Your task to perform on an android device: toggle sleep mode Image 0: 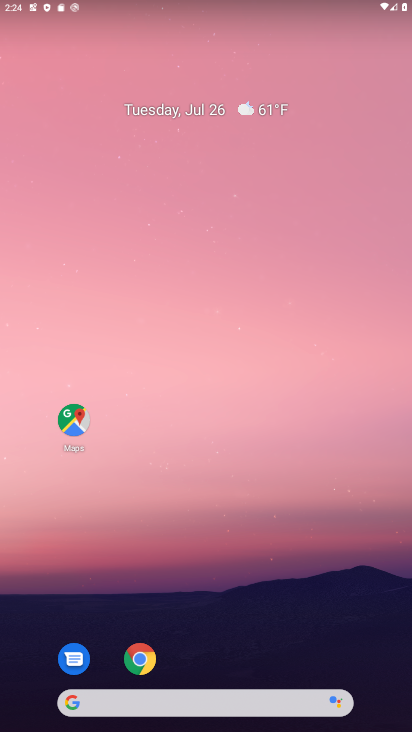
Step 0: drag from (180, 481) to (168, 63)
Your task to perform on an android device: toggle sleep mode Image 1: 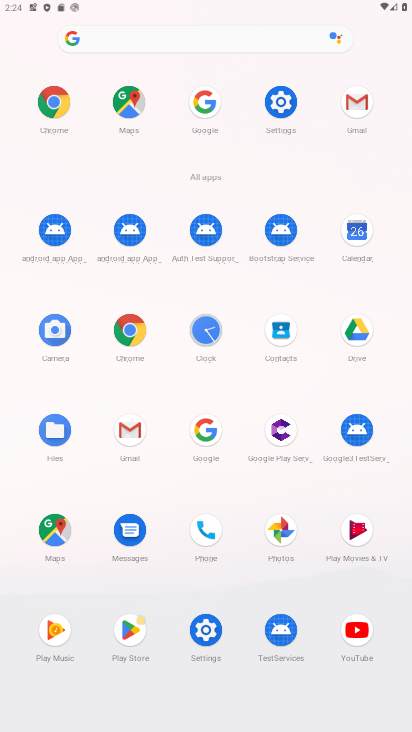
Step 1: click (287, 127)
Your task to perform on an android device: toggle sleep mode Image 2: 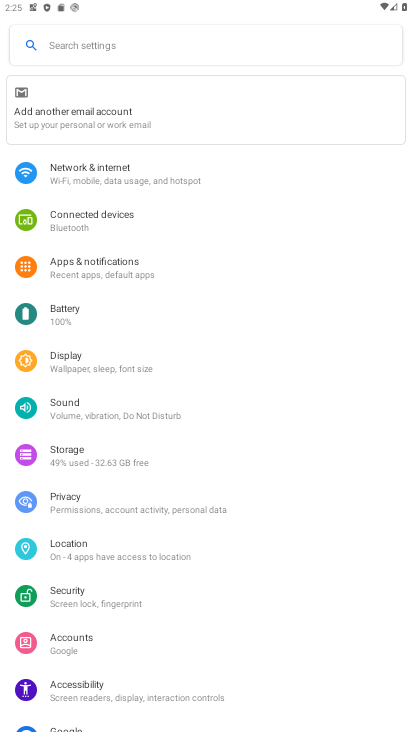
Step 2: task complete